Your task to perform on an android device: open sync settings in chrome Image 0: 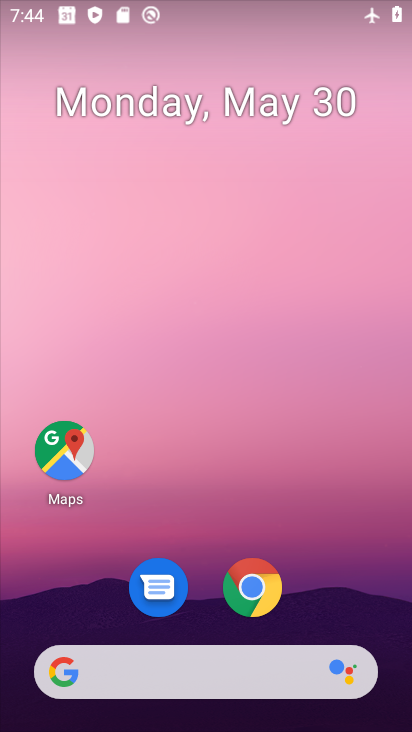
Step 0: drag from (300, 436) to (234, 33)
Your task to perform on an android device: open sync settings in chrome Image 1: 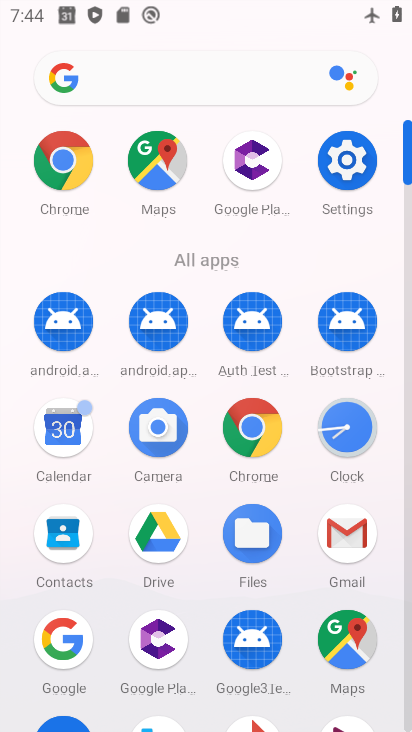
Step 1: drag from (3, 583) to (27, 203)
Your task to perform on an android device: open sync settings in chrome Image 2: 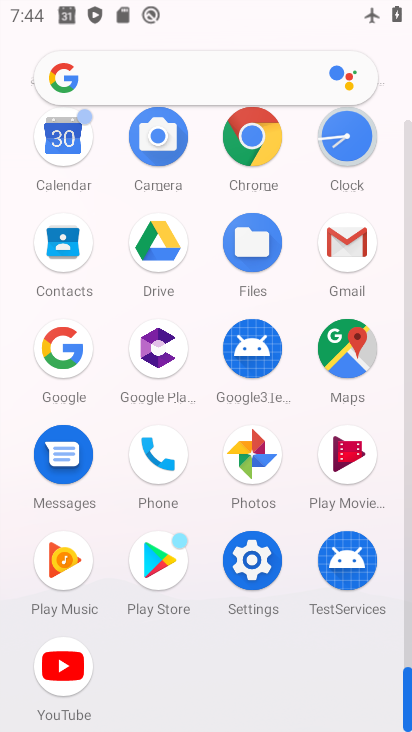
Step 2: click (250, 134)
Your task to perform on an android device: open sync settings in chrome Image 3: 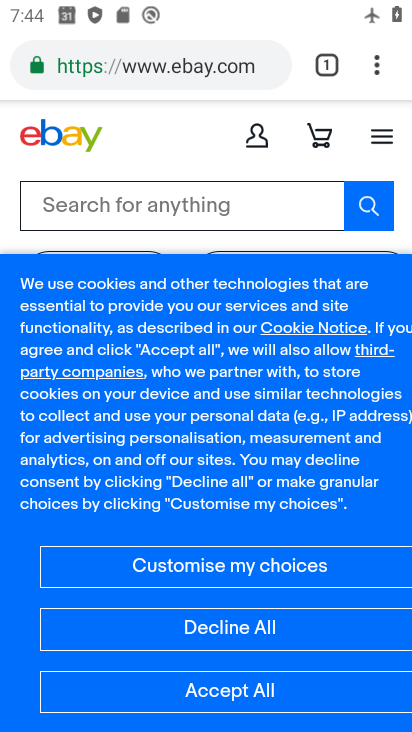
Step 3: drag from (377, 62) to (172, 630)
Your task to perform on an android device: open sync settings in chrome Image 4: 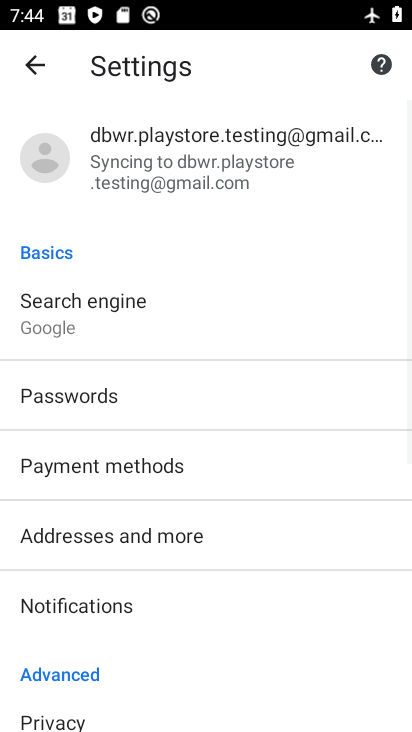
Step 4: click (172, 153)
Your task to perform on an android device: open sync settings in chrome Image 5: 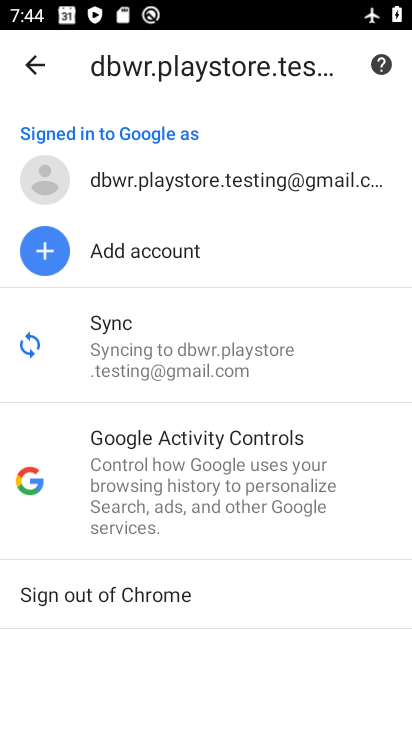
Step 5: click (173, 347)
Your task to perform on an android device: open sync settings in chrome Image 6: 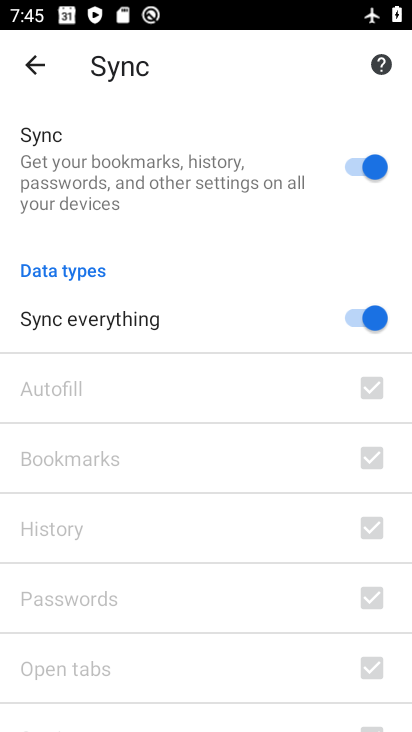
Step 6: task complete